Your task to perform on an android device: What's the weather? Image 0: 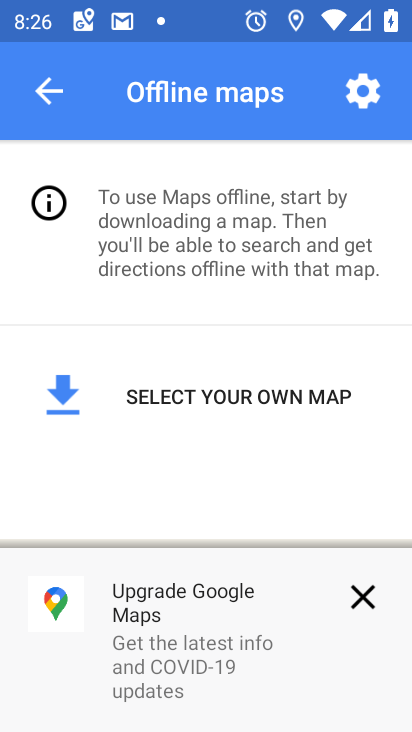
Step 0: press home button
Your task to perform on an android device: What's the weather? Image 1: 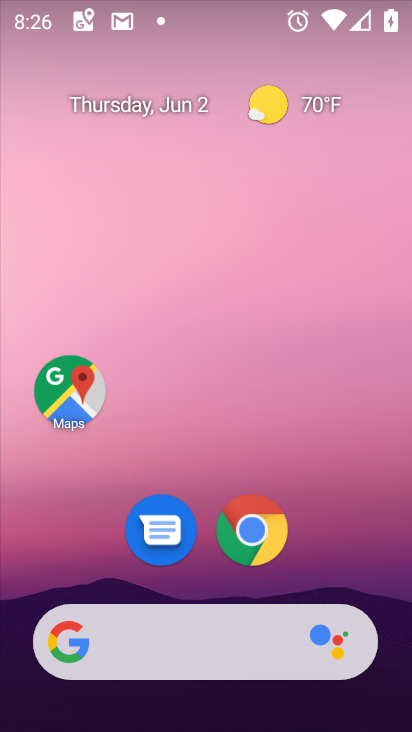
Step 1: drag from (146, 620) to (153, 280)
Your task to perform on an android device: What's the weather? Image 2: 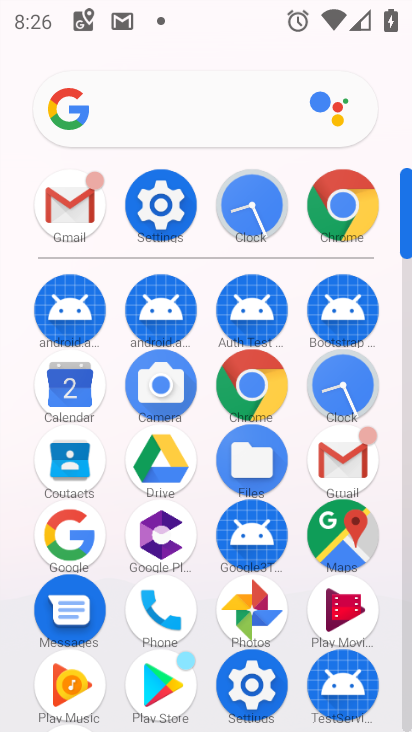
Step 2: click (83, 525)
Your task to perform on an android device: What's the weather? Image 3: 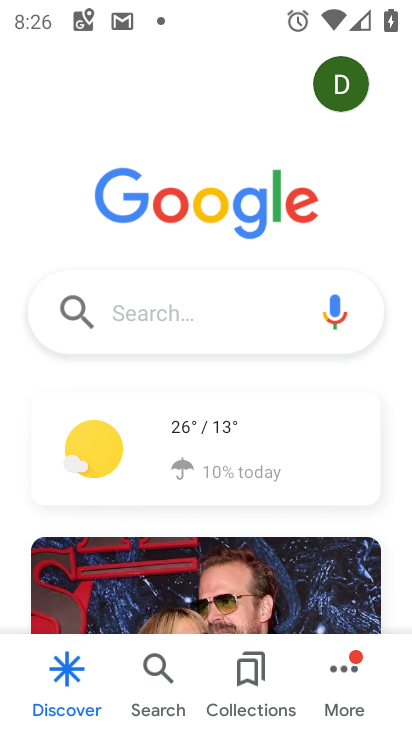
Step 3: click (175, 462)
Your task to perform on an android device: What's the weather? Image 4: 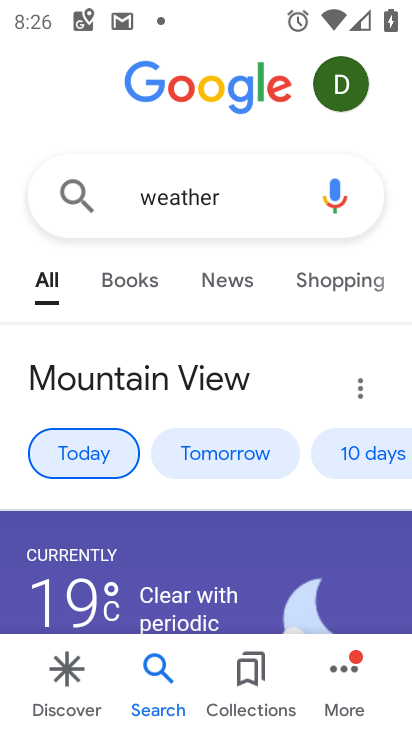
Step 4: task complete